Your task to perform on an android device: turn off notifications settings in the gmail app Image 0: 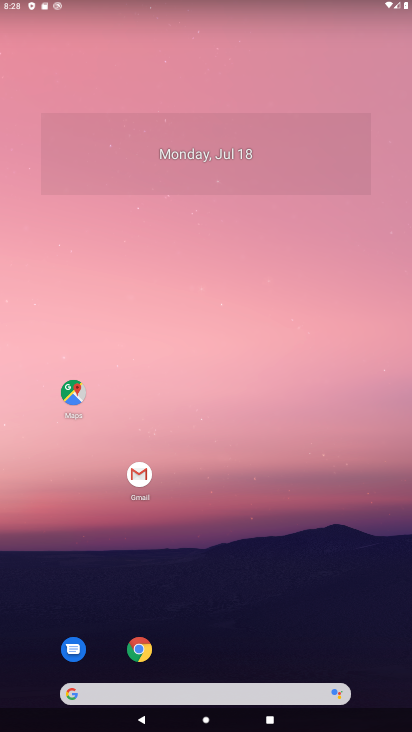
Step 0: drag from (294, 528) to (239, 278)
Your task to perform on an android device: turn off notifications settings in the gmail app Image 1: 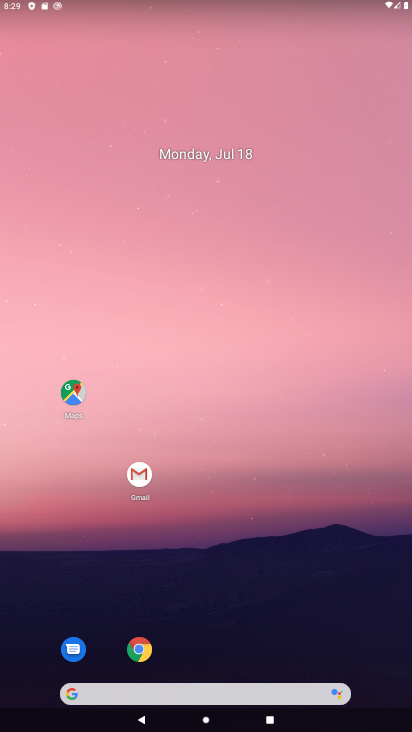
Step 1: click (135, 485)
Your task to perform on an android device: turn off notifications settings in the gmail app Image 2: 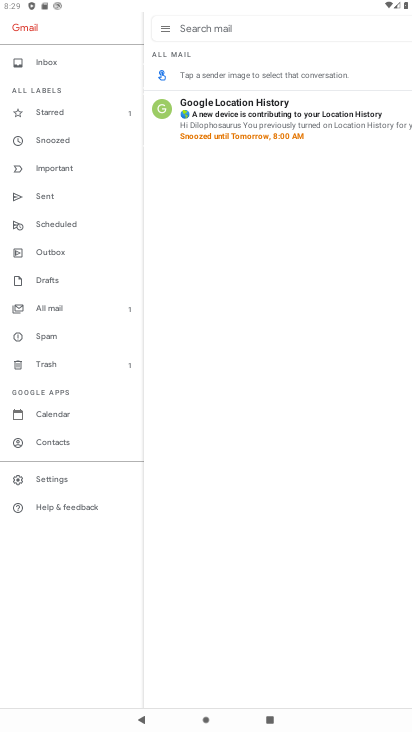
Step 2: click (52, 476)
Your task to perform on an android device: turn off notifications settings in the gmail app Image 3: 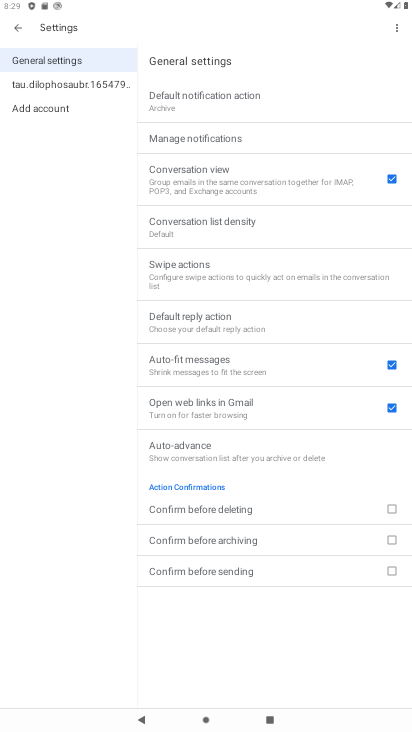
Step 3: task complete